Your task to perform on an android device: turn off location Image 0: 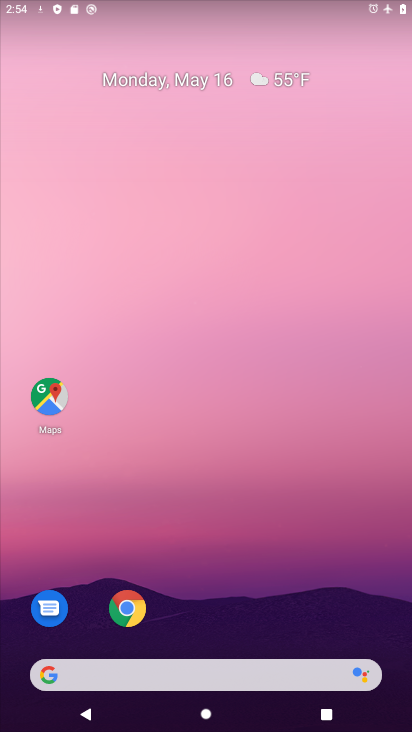
Step 0: drag from (194, 609) to (193, 291)
Your task to perform on an android device: turn off location Image 1: 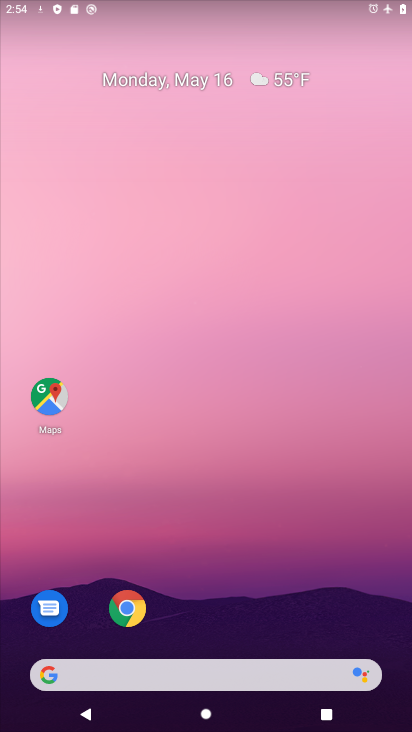
Step 1: drag from (214, 624) to (172, 200)
Your task to perform on an android device: turn off location Image 2: 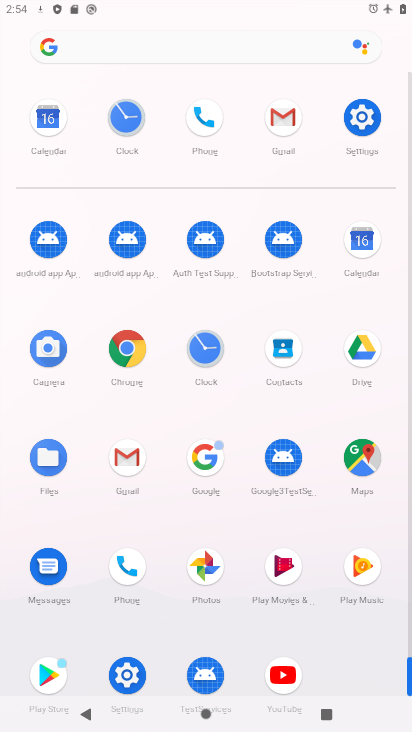
Step 2: click (344, 122)
Your task to perform on an android device: turn off location Image 3: 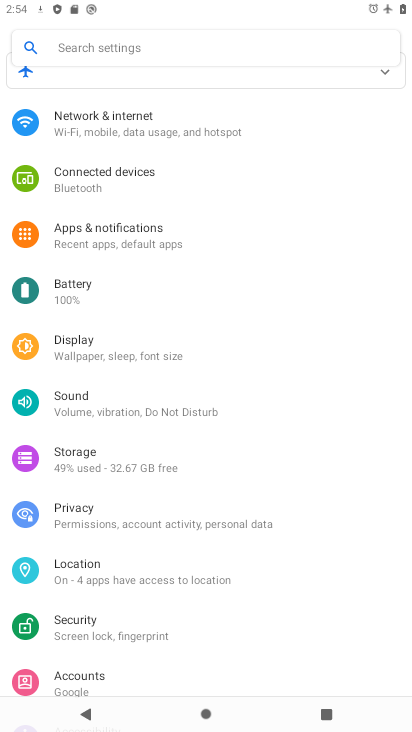
Step 3: click (130, 580)
Your task to perform on an android device: turn off location Image 4: 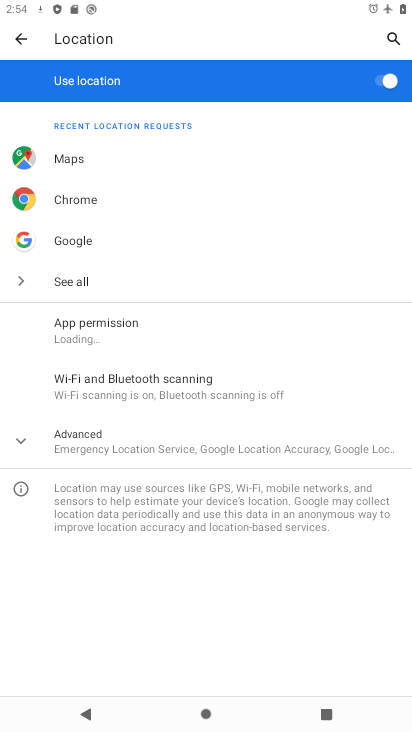
Step 4: click (375, 83)
Your task to perform on an android device: turn off location Image 5: 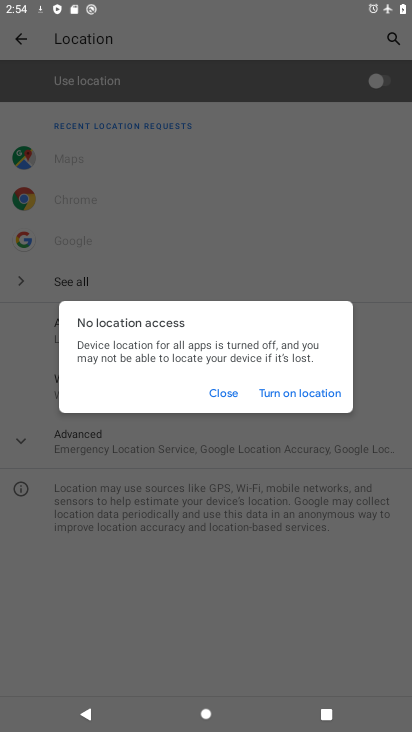
Step 5: task complete